Your task to perform on an android device: change the clock display to analog Image 0: 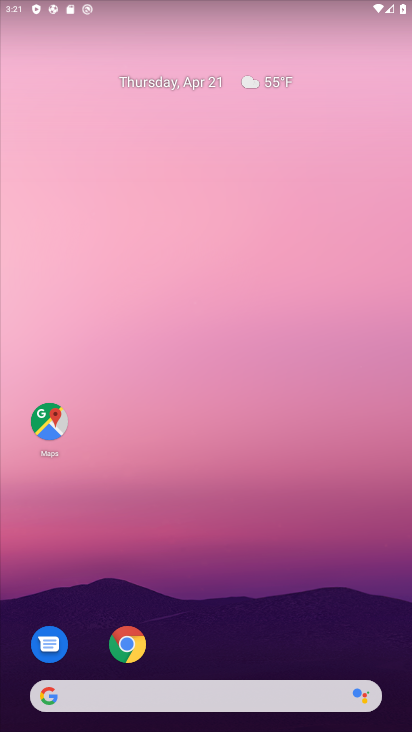
Step 0: drag from (229, 670) to (180, 19)
Your task to perform on an android device: change the clock display to analog Image 1: 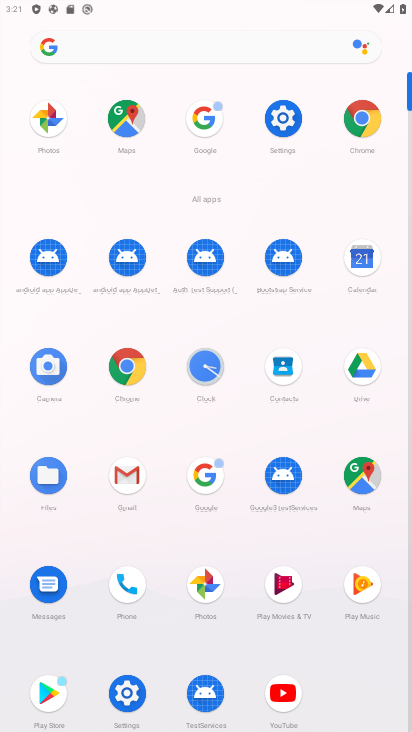
Step 1: click (214, 364)
Your task to perform on an android device: change the clock display to analog Image 2: 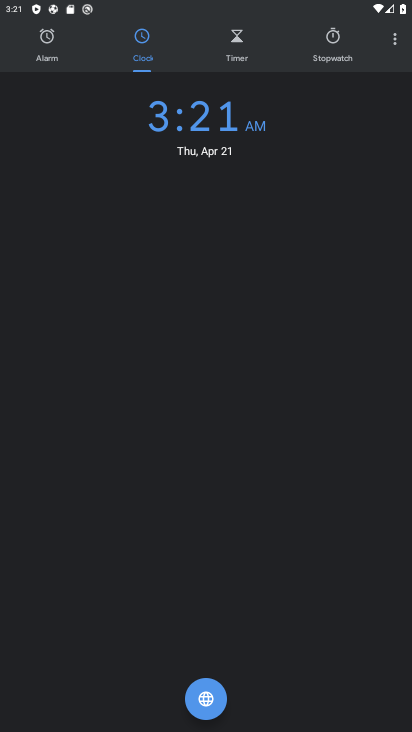
Step 2: click (389, 39)
Your task to perform on an android device: change the clock display to analog Image 3: 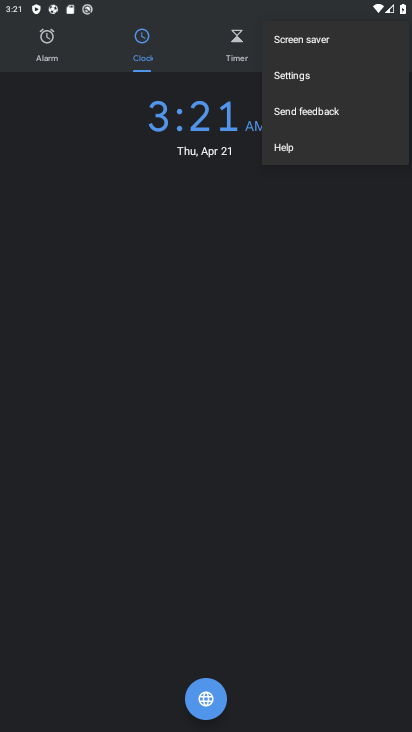
Step 3: click (305, 80)
Your task to perform on an android device: change the clock display to analog Image 4: 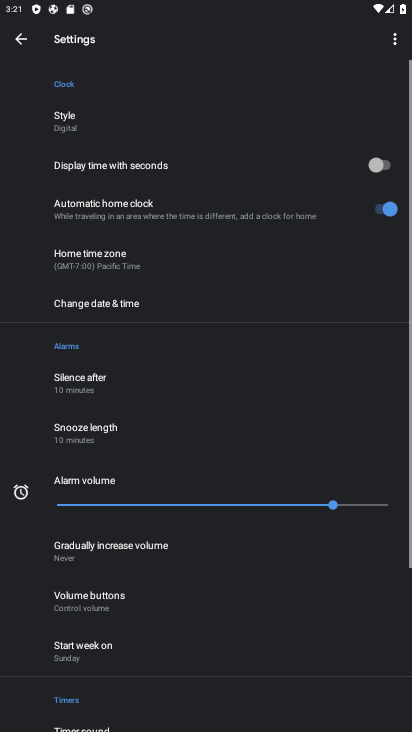
Step 4: click (59, 119)
Your task to perform on an android device: change the clock display to analog Image 5: 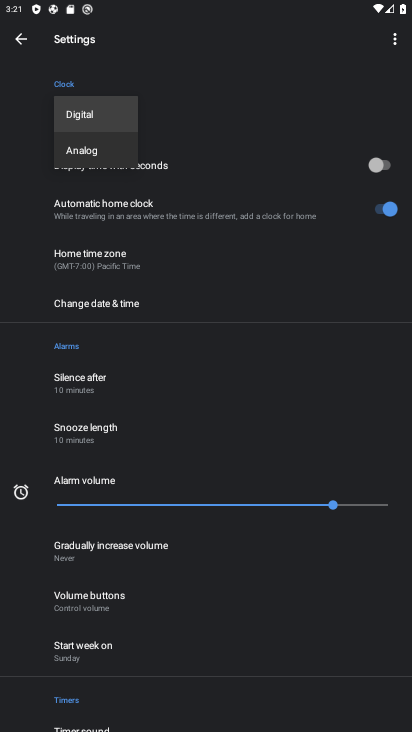
Step 5: click (87, 156)
Your task to perform on an android device: change the clock display to analog Image 6: 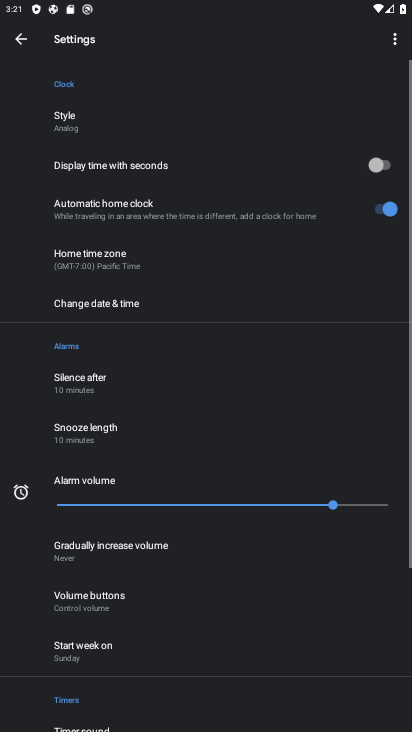
Step 6: task complete